Your task to perform on an android device: Open Yahoo.com Image 0: 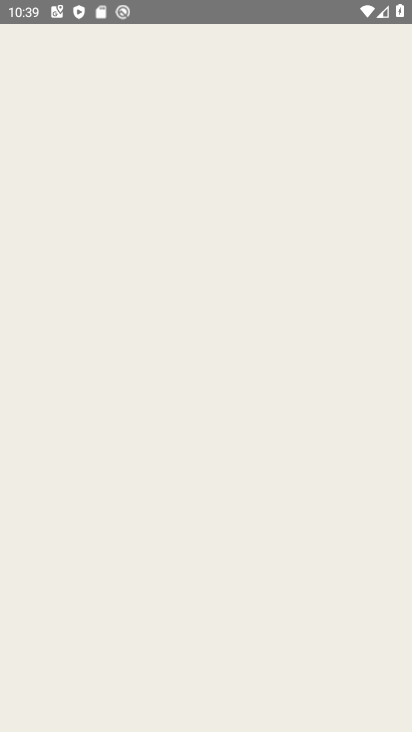
Step 0: press home button
Your task to perform on an android device: Open Yahoo.com Image 1: 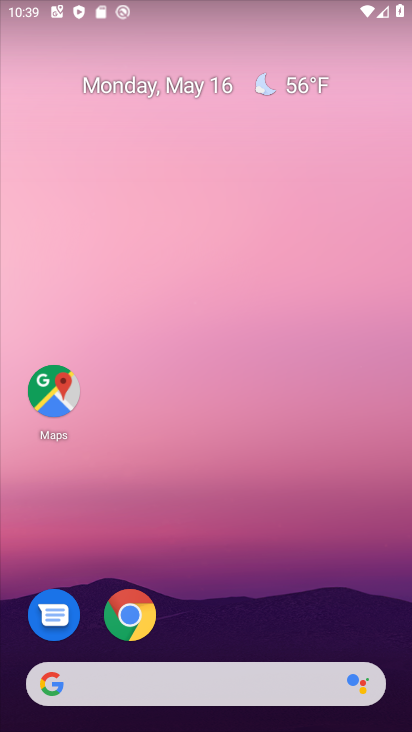
Step 1: drag from (208, 708) to (279, 233)
Your task to perform on an android device: Open Yahoo.com Image 2: 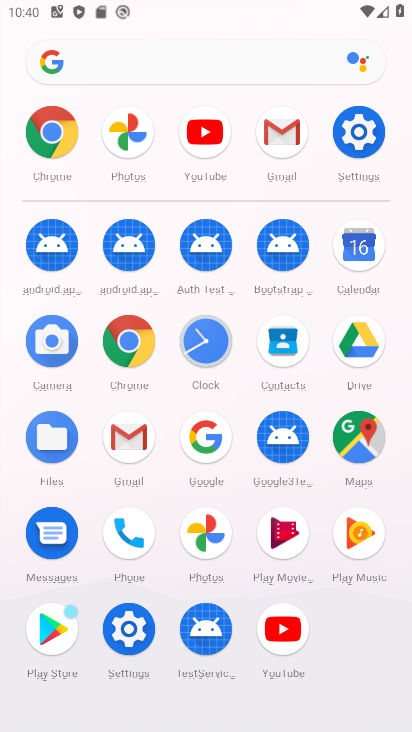
Step 2: click (63, 119)
Your task to perform on an android device: Open Yahoo.com Image 3: 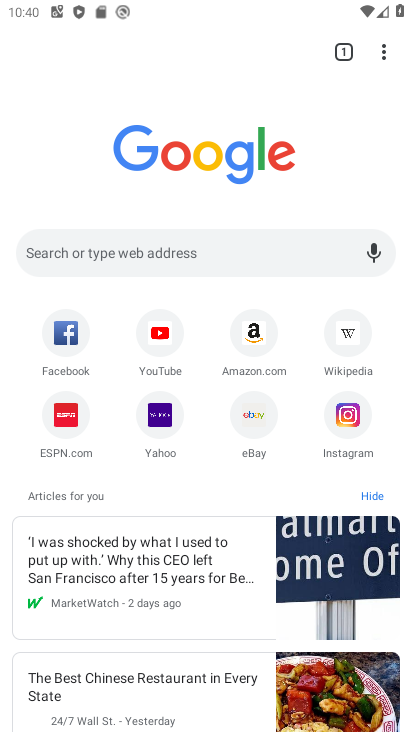
Step 3: click (151, 414)
Your task to perform on an android device: Open Yahoo.com Image 4: 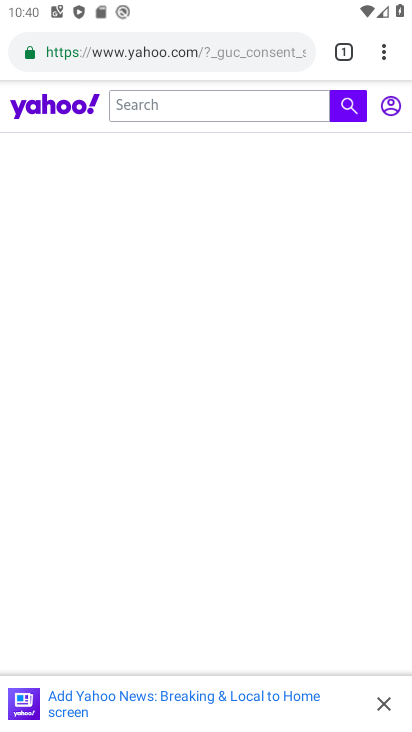
Step 4: task complete